Your task to perform on an android device: Clear the shopping cart on costco.com. Add "lenovo thinkpad" to the cart on costco.com Image 0: 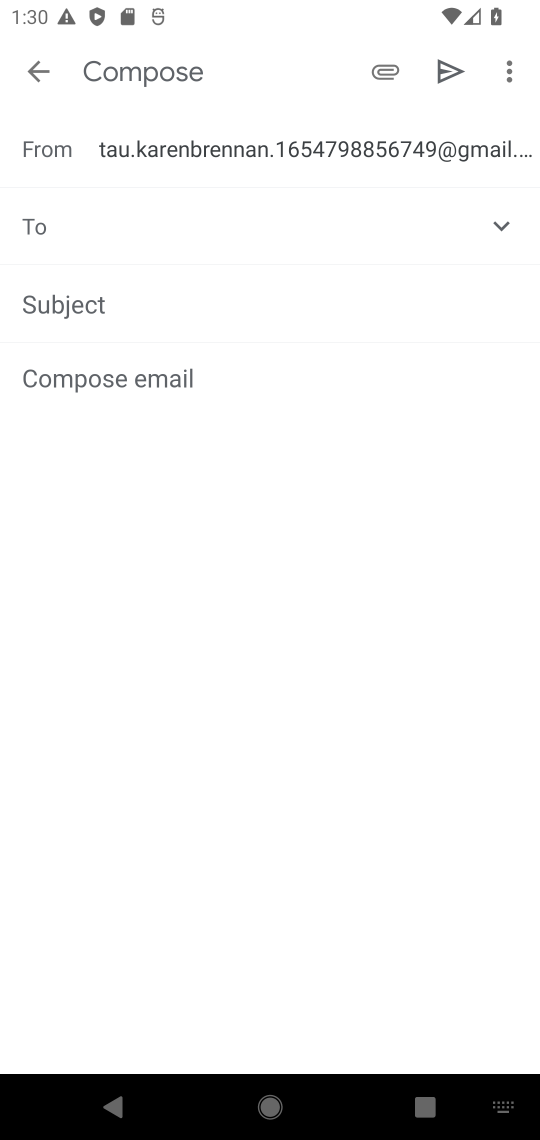
Step 0: press home button
Your task to perform on an android device: Clear the shopping cart on costco.com. Add "lenovo thinkpad" to the cart on costco.com Image 1: 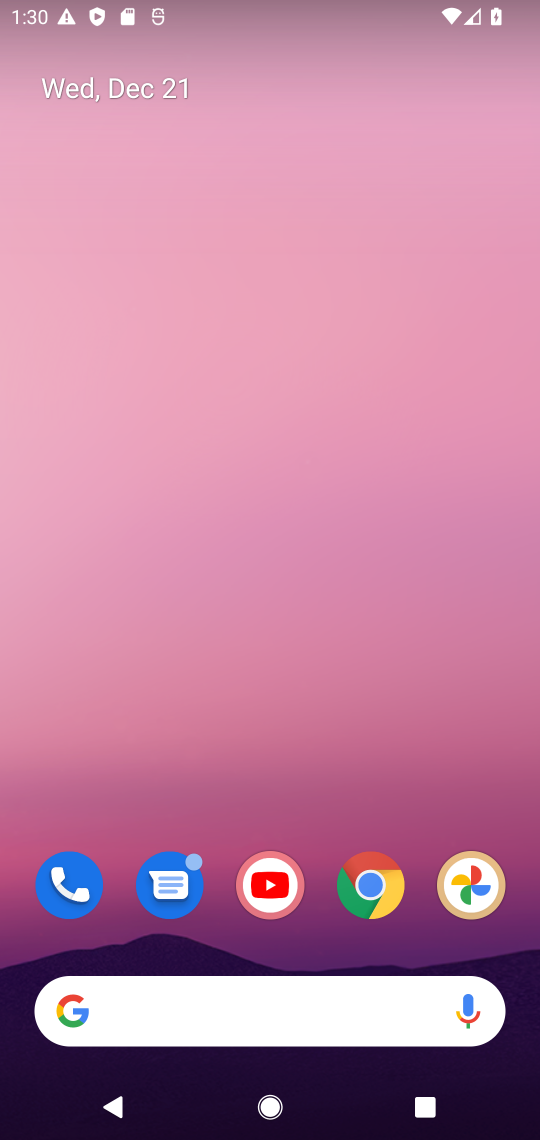
Step 1: drag from (230, 946) to (230, 506)
Your task to perform on an android device: Clear the shopping cart on costco.com. Add "lenovo thinkpad" to the cart on costco.com Image 2: 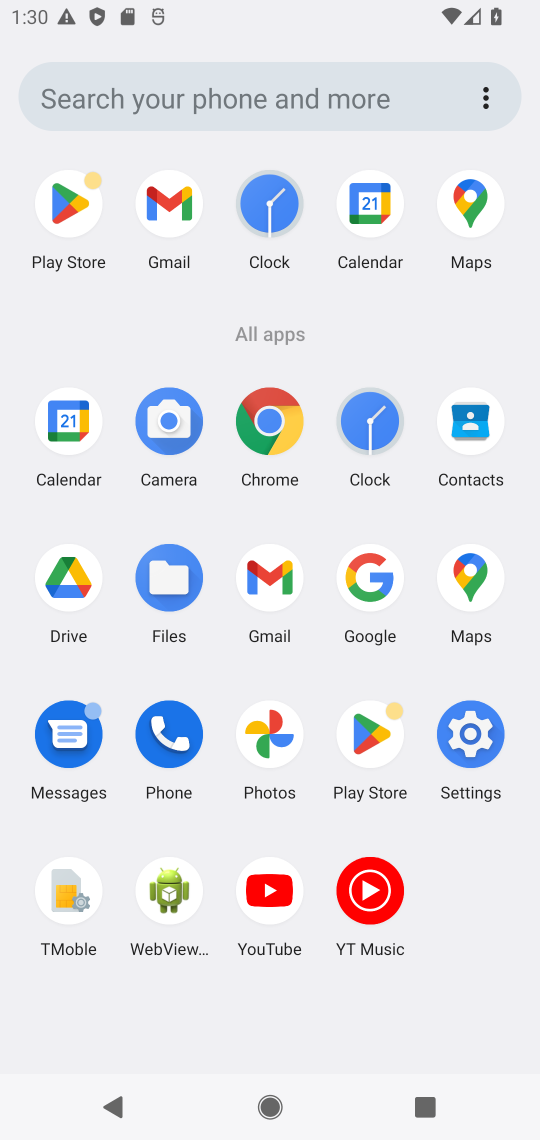
Step 2: click (371, 576)
Your task to perform on an android device: Clear the shopping cart on costco.com. Add "lenovo thinkpad" to the cart on costco.com Image 3: 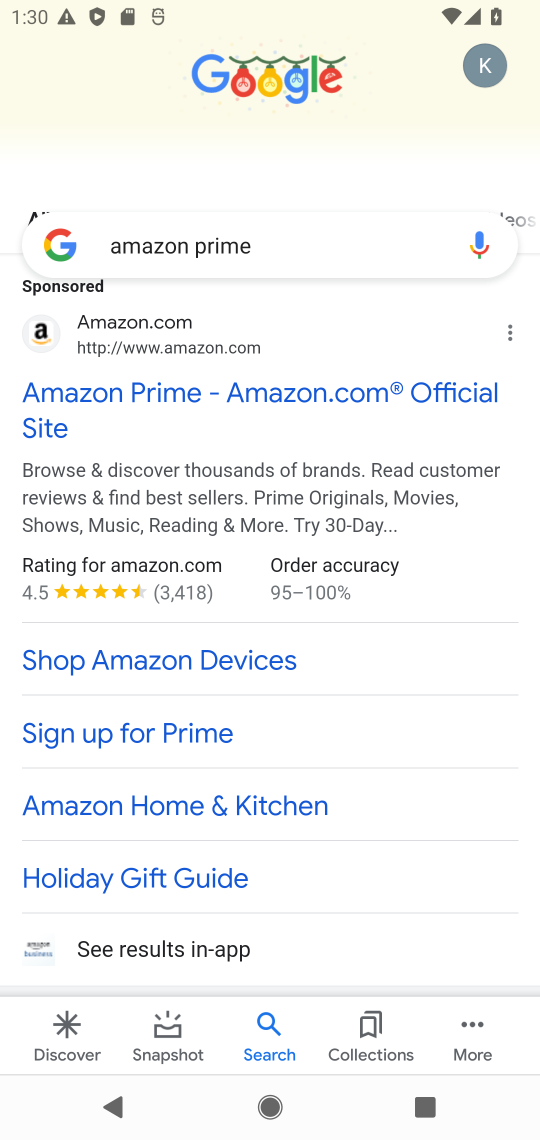
Step 3: click (180, 237)
Your task to perform on an android device: Clear the shopping cart on costco.com. Add "lenovo thinkpad" to the cart on costco.com Image 4: 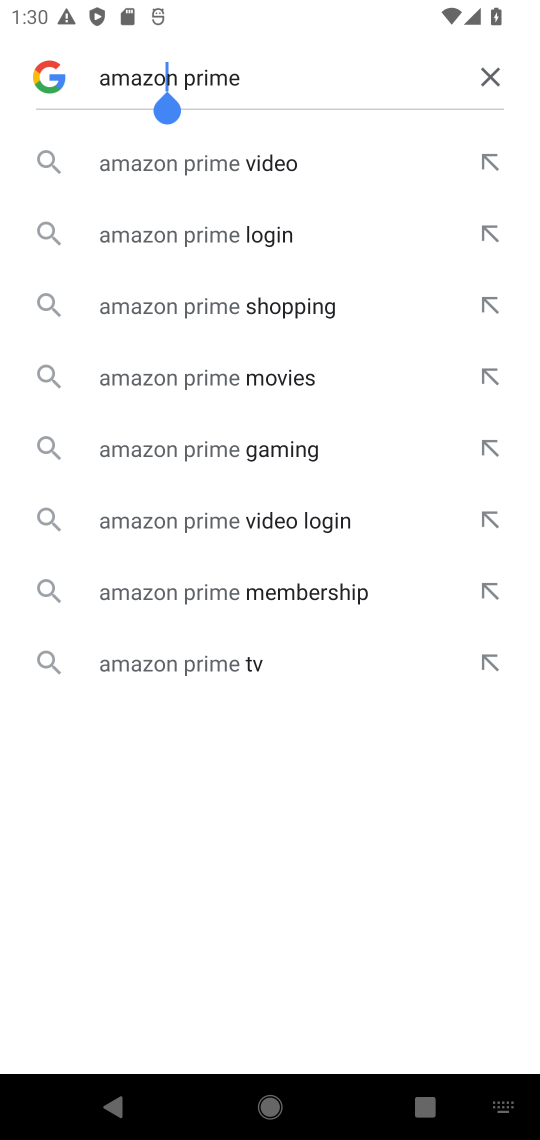
Step 4: click (497, 74)
Your task to perform on an android device: Clear the shopping cart on costco.com. Add "lenovo thinkpad" to the cart on costco.com Image 5: 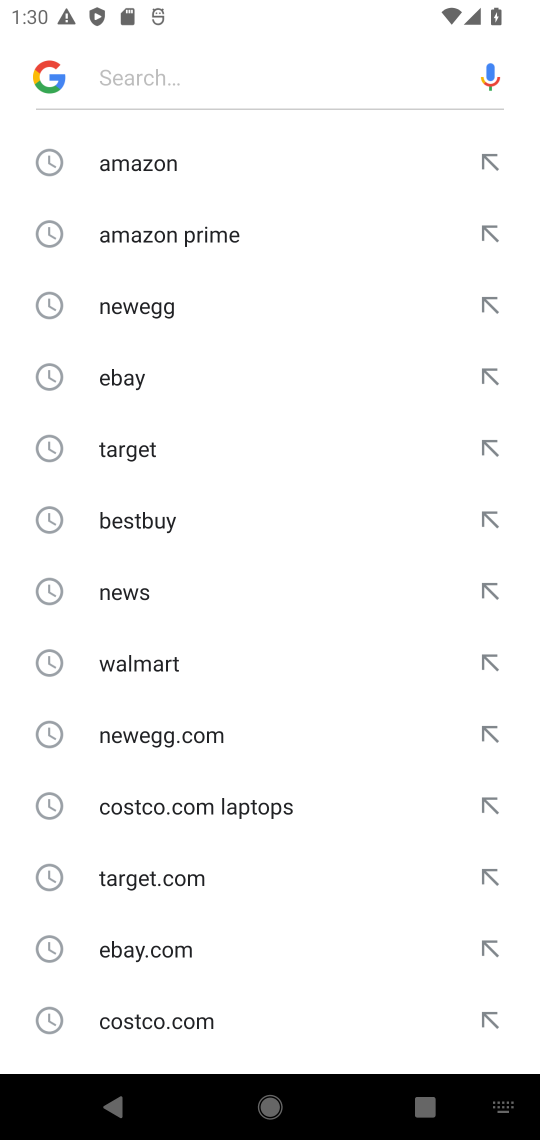
Step 5: click (172, 1022)
Your task to perform on an android device: Clear the shopping cart on costco.com. Add "lenovo thinkpad" to the cart on costco.com Image 6: 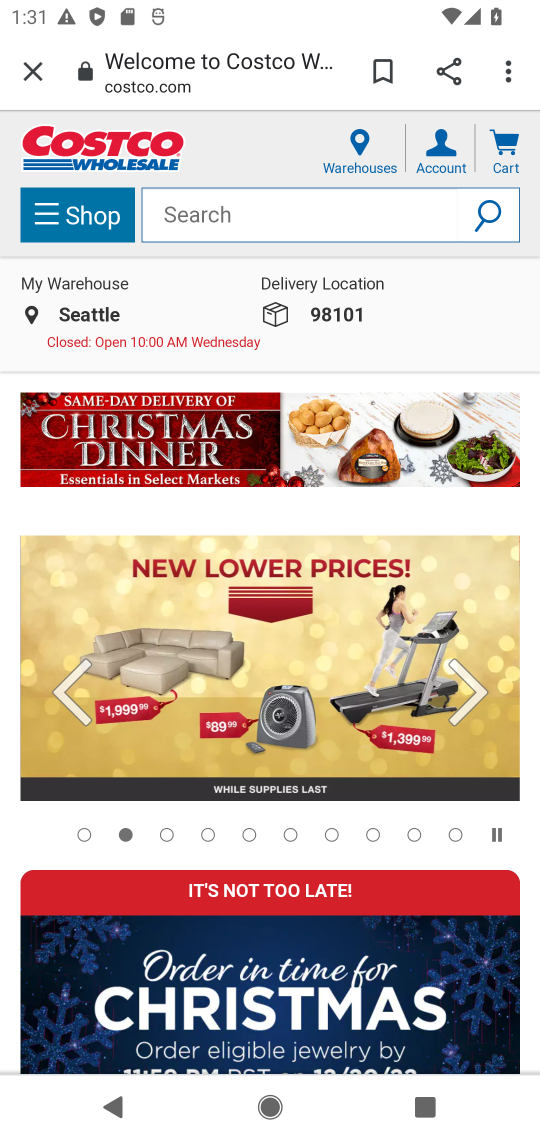
Step 6: click (265, 213)
Your task to perform on an android device: Clear the shopping cart on costco.com. Add "lenovo thinkpad" to the cart on costco.com Image 7: 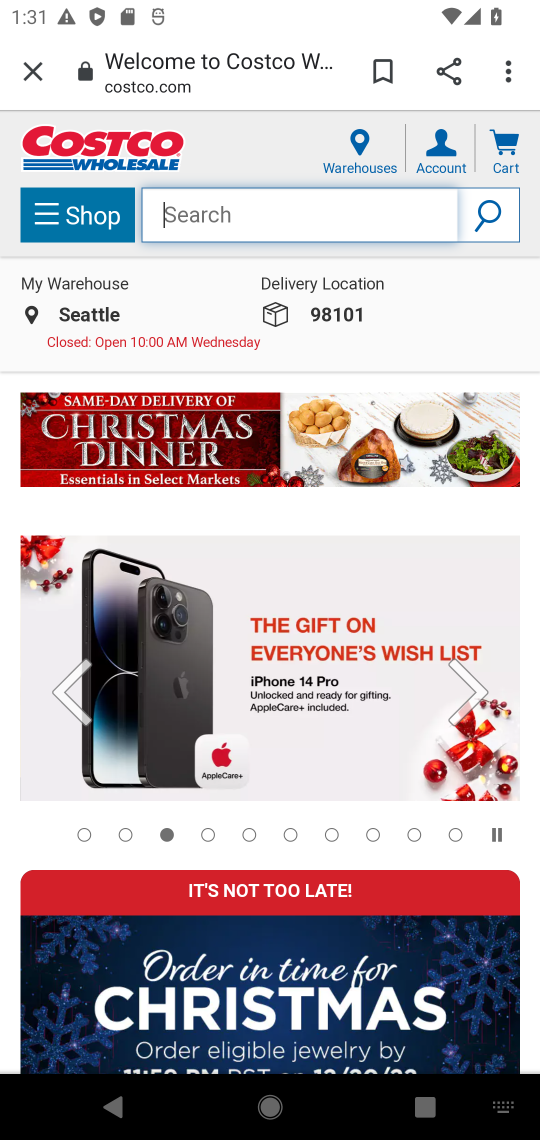
Step 7: type "lenovo thinkpad"
Your task to perform on an android device: Clear the shopping cart on costco.com. Add "lenovo thinkpad" to the cart on costco.com Image 8: 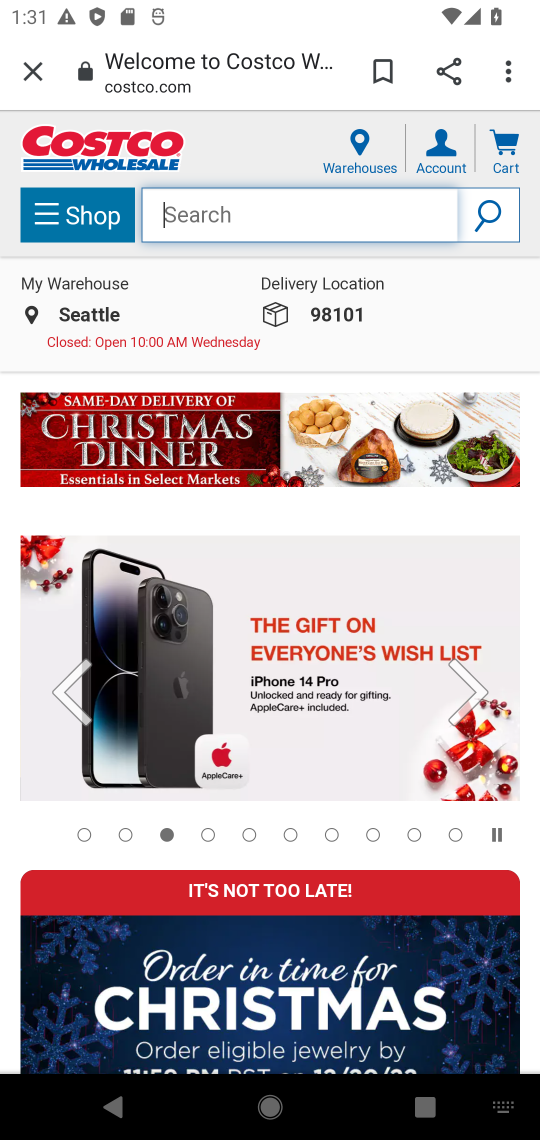
Step 8: click (480, 217)
Your task to perform on an android device: Clear the shopping cart on costco.com. Add "lenovo thinkpad" to the cart on costco.com Image 9: 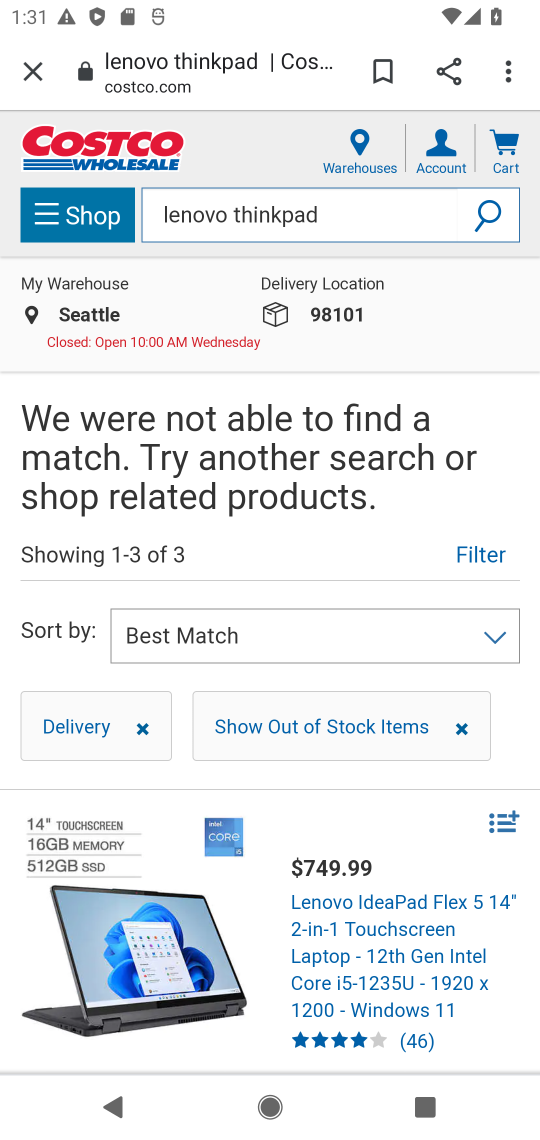
Step 9: drag from (444, 1037) to (412, 596)
Your task to perform on an android device: Clear the shopping cart on costco.com. Add "lenovo thinkpad" to the cart on costco.com Image 10: 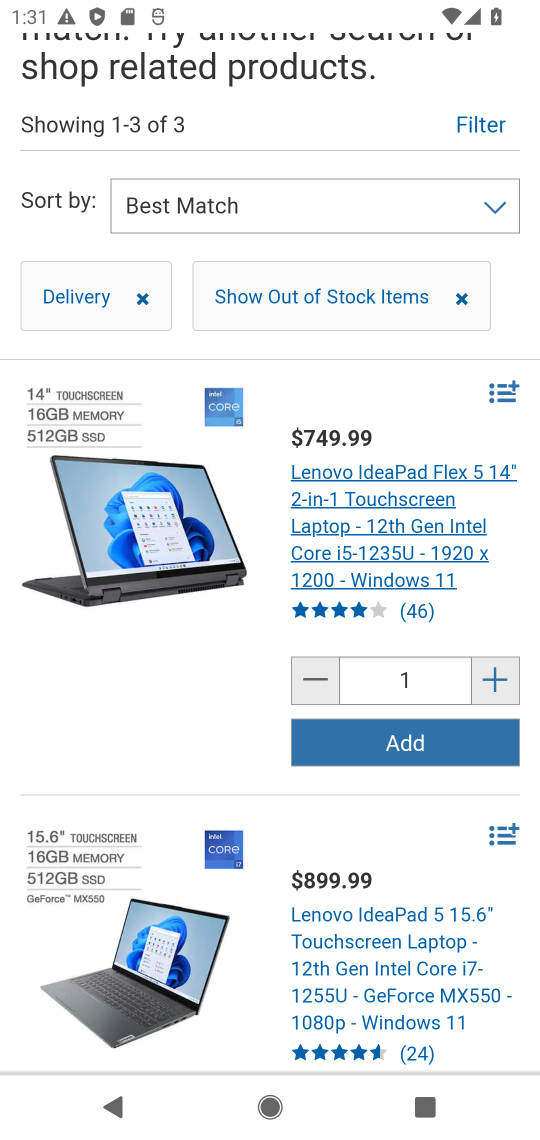
Step 10: click (449, 739)
Your task to perform on an android device: Clear the shopping cart on costco.com. Add "lenovo thinkpad" to the cart on costco.com Image 11: 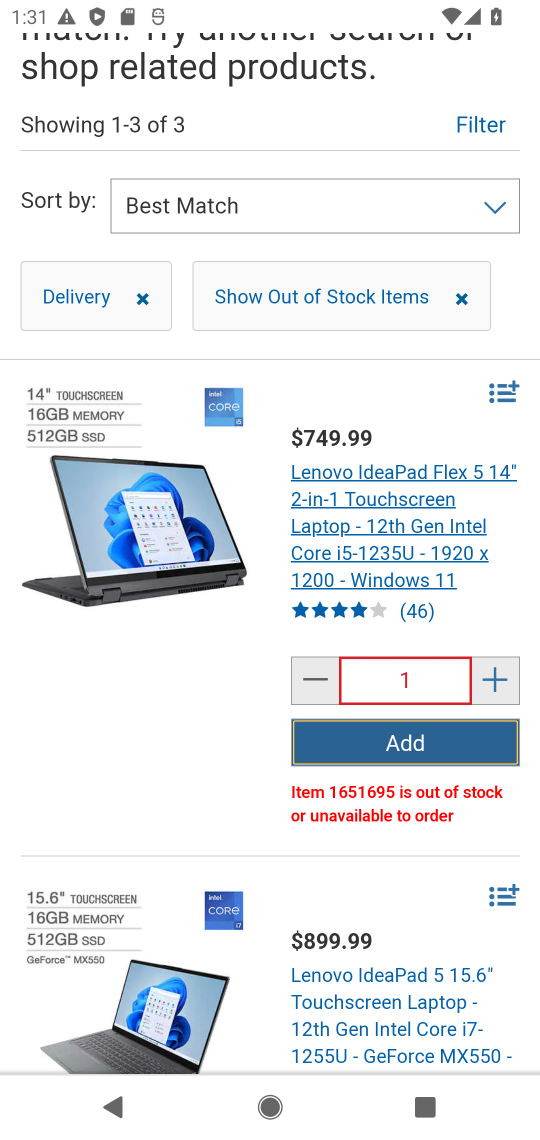
Step 11: task complete